Your task to perform on an android device: Open Android settings Image 0: 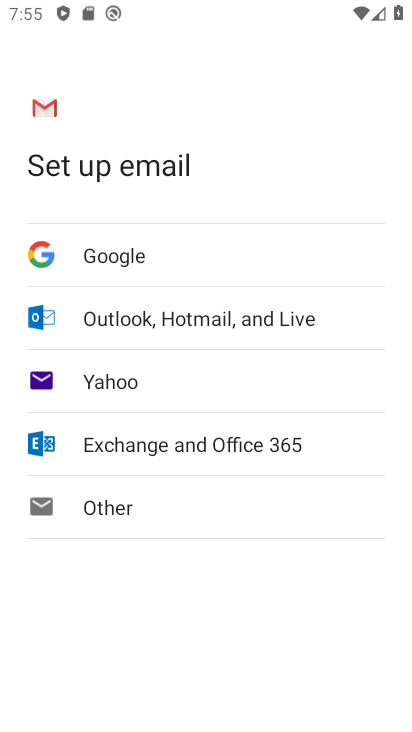
Step 0: press home button
Your task to perform on an android device: Open Android settings Image 1: 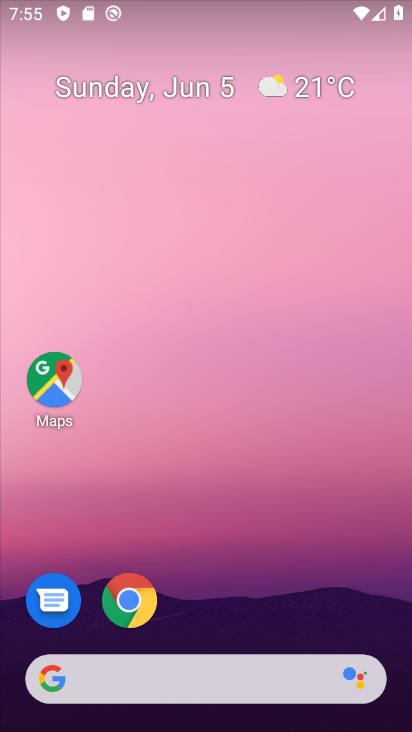
Step 1: drag from (288, 622) to (300, 10)
Your task to perform on an android device: Open Android settings Image 2: 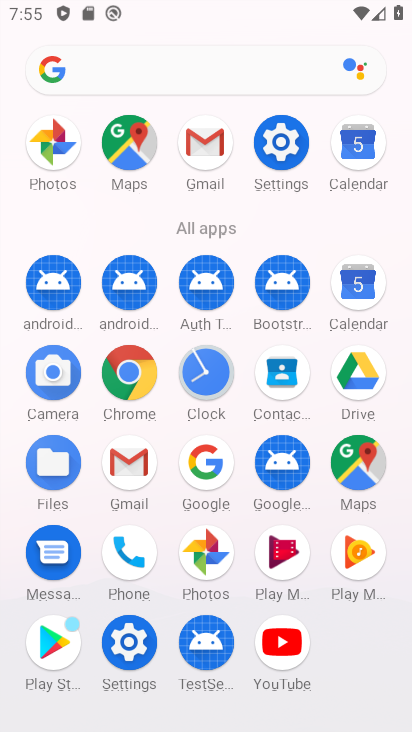
Step 2: click (137, 647)
Your task to perform on an android device: Open Android settings Image 3: 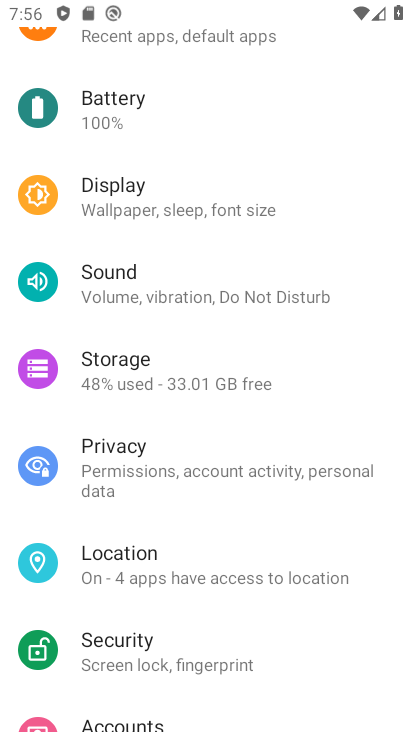
Step 3: drag from (217, 659) to (287, 42)
Your task to perform on an android device: Open Android settings Image 4: 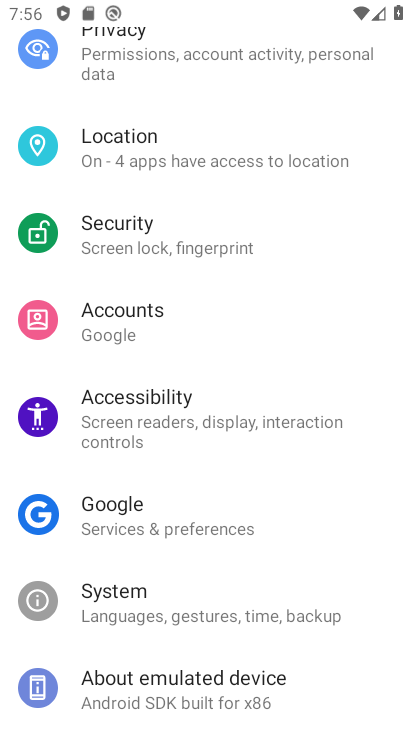
Step 4: click (165, 602)
Your task to perform on an android device: Open Android settings Image 5: 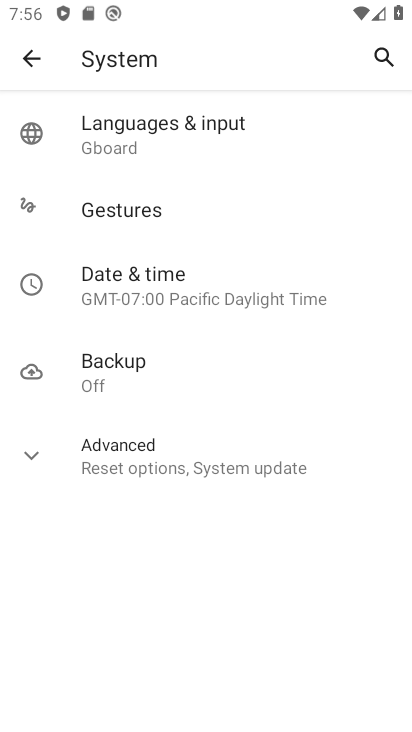
Step 5: task complete